Your task to perform on an android device: toggle show notifications on the lock screen Image 0: 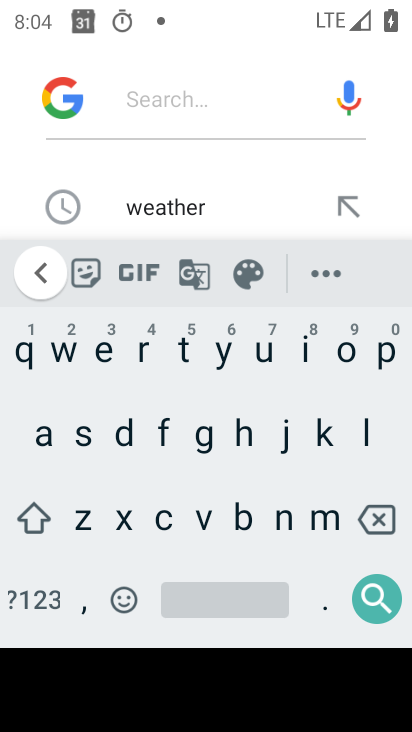
Step 0: press home button
Your task to perform on an android device: toggle show notifications on the lock screen Image 1: 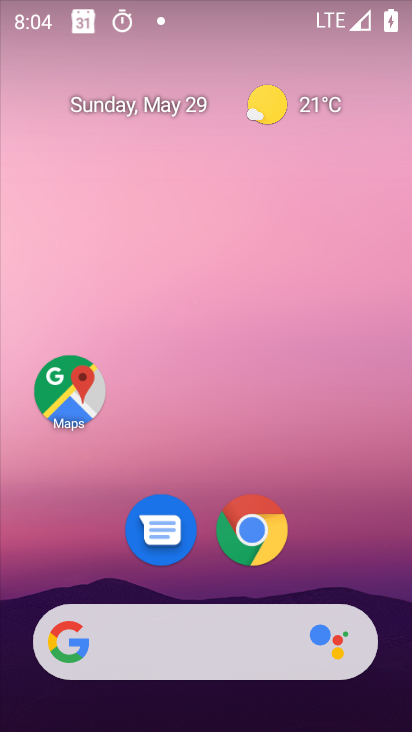
Step 1: drag from (241, 675) to (242, 153)
Your task to perform on an android device: toggle show notifications on the lock screen Image 2: 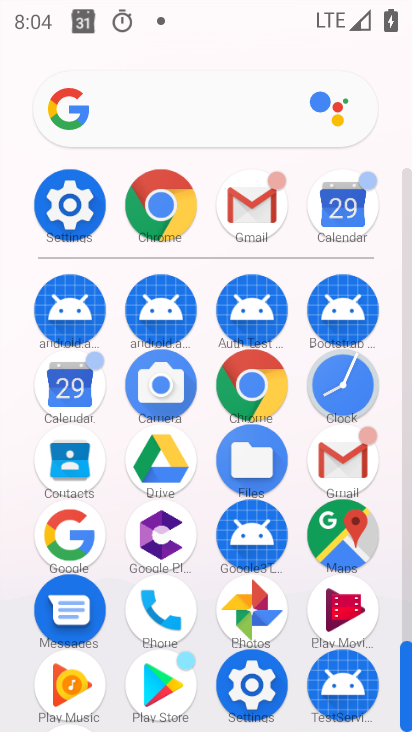
Step 2: click (69, 227)
Your task to perform on an android device: toggle show notifications on the lock screen Image 3: 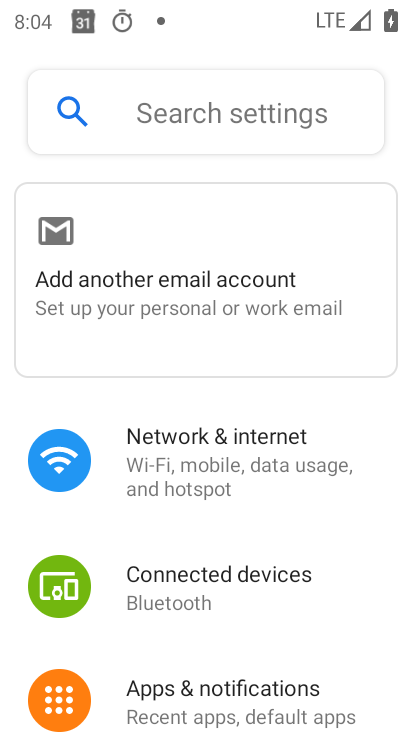
Step 3: click (222, 116)
Your task to perform on an android device: toggle show notifications on the lock screen Image 4: 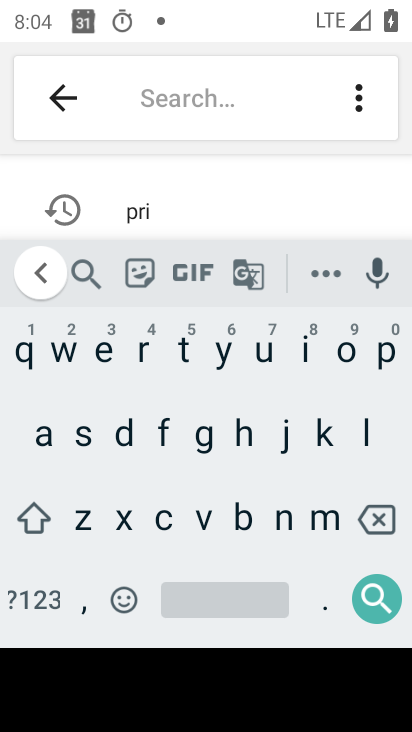
Step 4: click (282, 516)
Your task to perform on an android device: toggle show notifications on the lock screen Image 5: 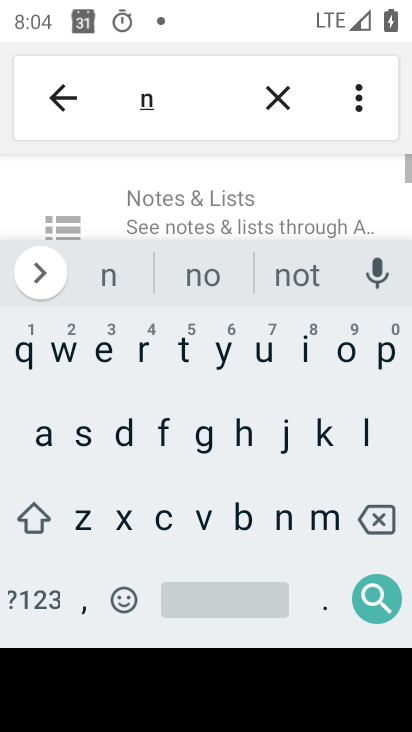
Step 5: click (344, 360)
Your task to perform on an android device: toggle show notifications on the lock screen Image 6: 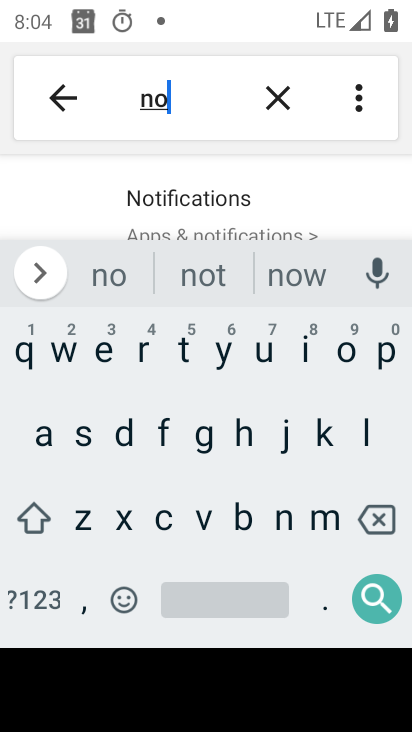
Step 6: click (218, 206)
Your task to perform on an android device: toggle show notifications on the lock screen Image 7: 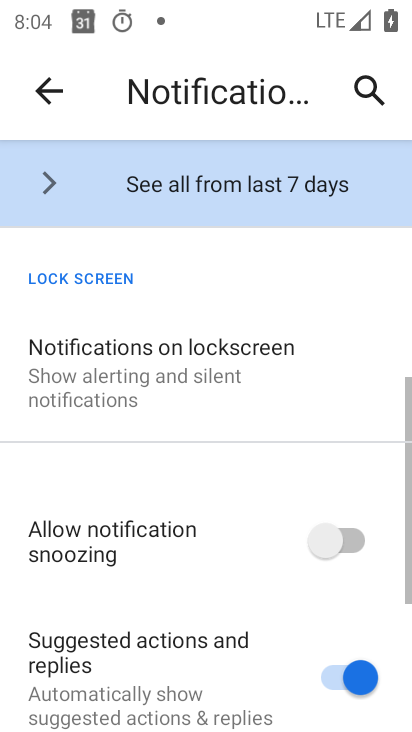
Step 7: click (154, 360)
Your task to perform on an android device: toggle show notifications on the lock screen Image 8: 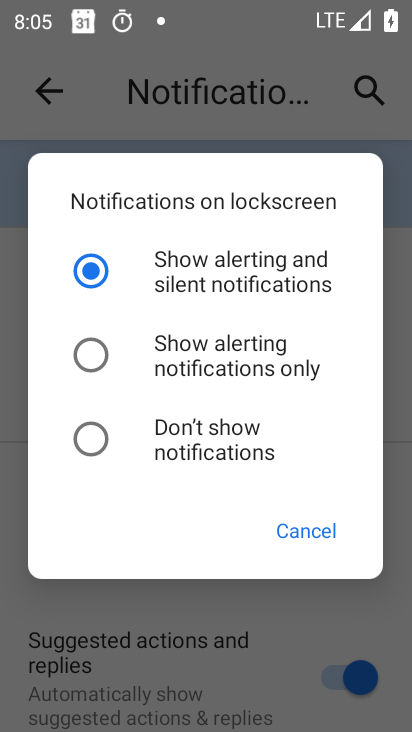
Step 8: task complete